Your task to perform on an android device: Add "jbl charge 4" to the cart on ebay Image 0: 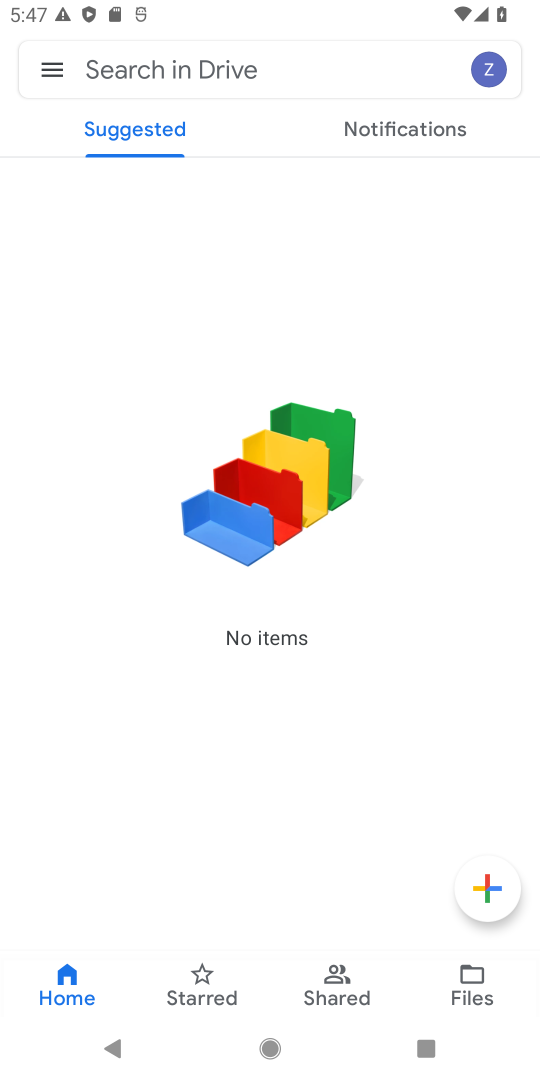
Step 0: press home button
Your task to perform on an android device: Add "jbl charge 4" to the cart on ebay Image 1: 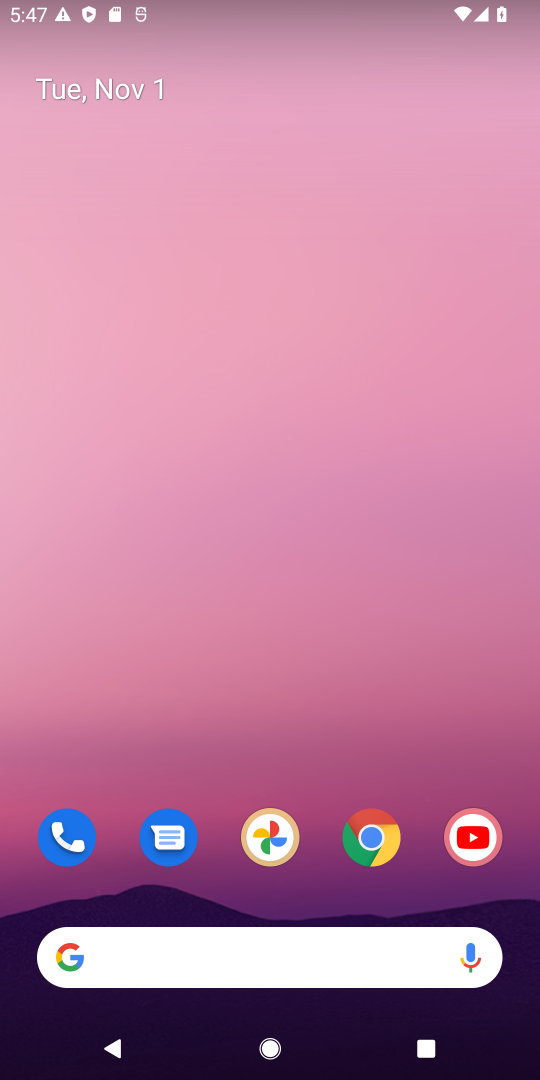
Step 1: drag from (339, 1007) to (461, 356)
Your task to perform on an android device: Add "jbl charge 4" to the cart on ebay Image 2: 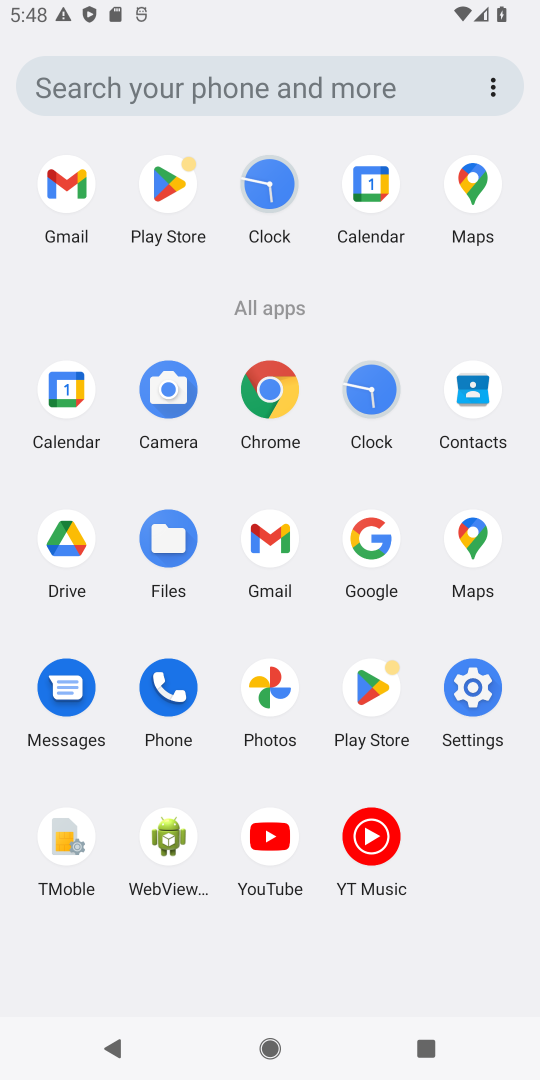
Step 2: click (275, 384)
Your task to perform on an android device: Add "jbl charge 4" to the cart on ebay Image 3: 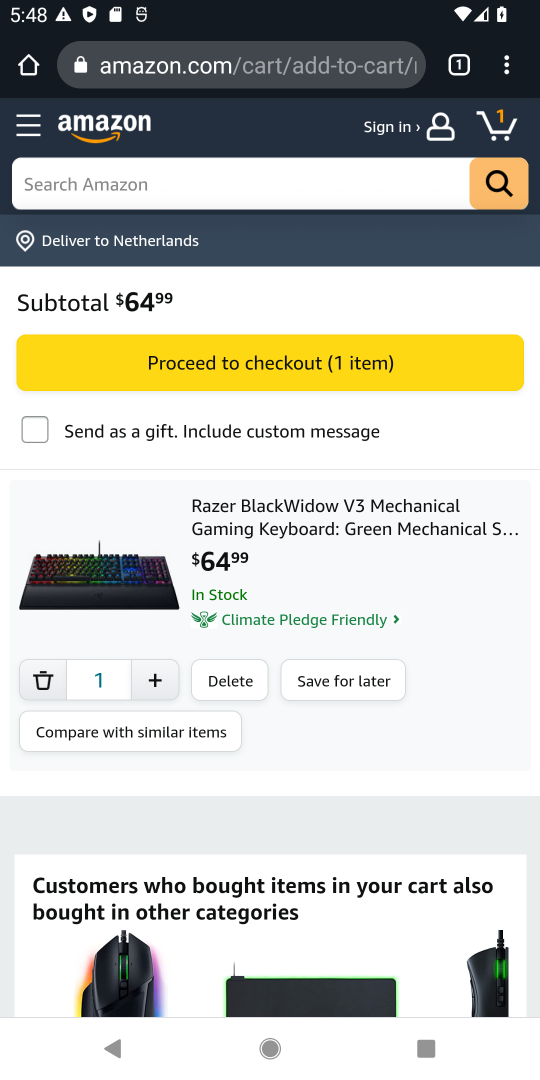
Step 3: click (207, 51)
Your task to perform on an android device: Add "jbl charge 4" to the cart on ebay Image 4: 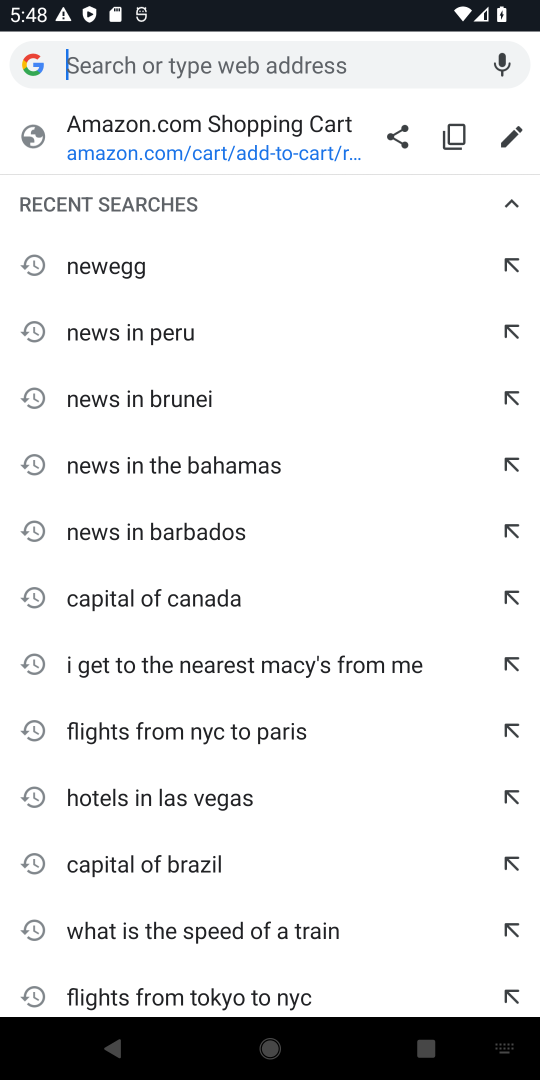
Step 4: type "ebay"
Your task to perform on an android device: Add "jbl charge 4" to the cart on ebay Image 5: 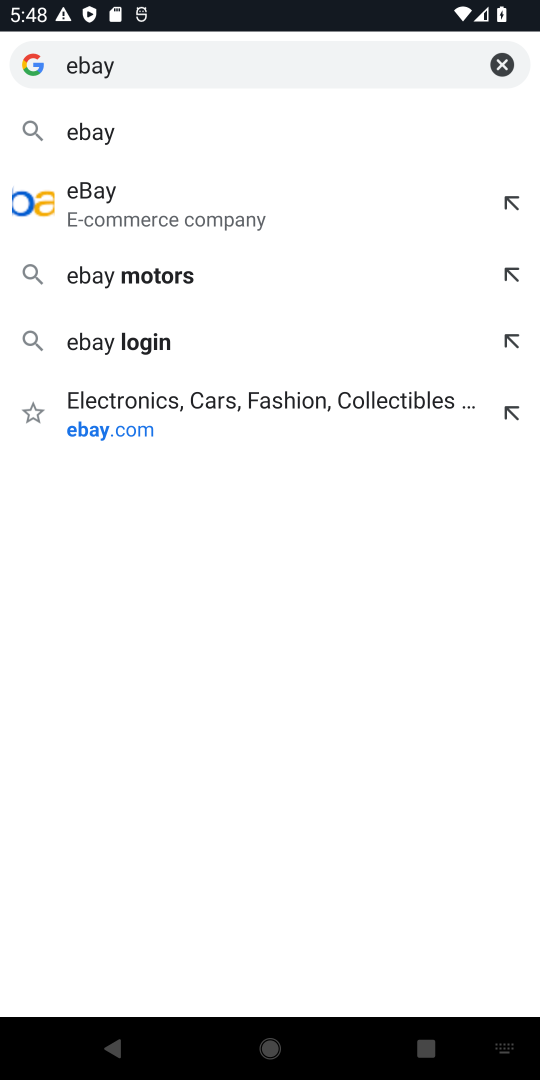
Step 5: click (89, 198)
Your task to perform on an android device: Add "jbl charge 4" to the cart on ebay Image 6: 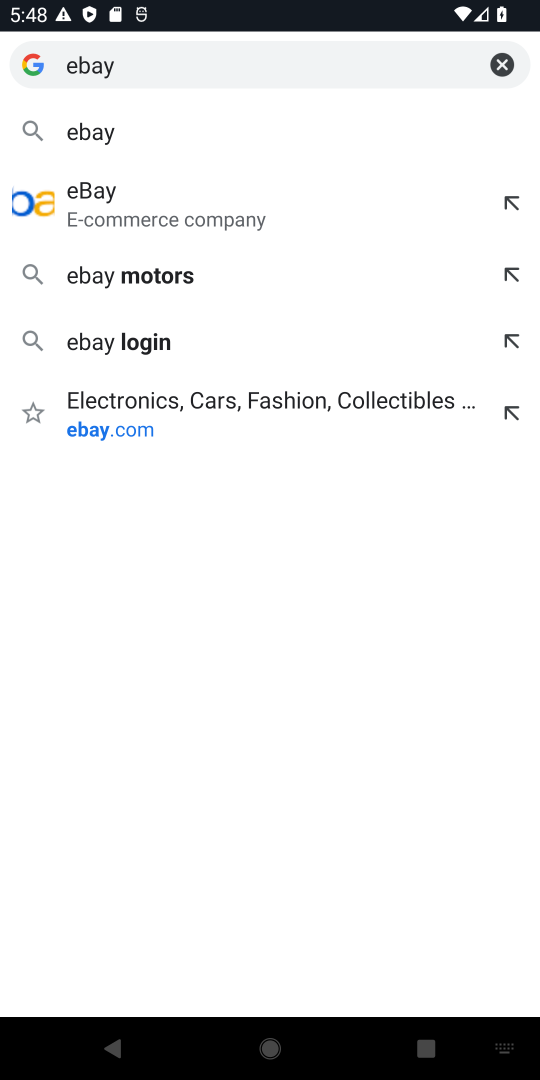
Step 6: click (83, 187)
Your task to perform on an android device: Add "jbl charge 4" to the cart on ebay Image 7: 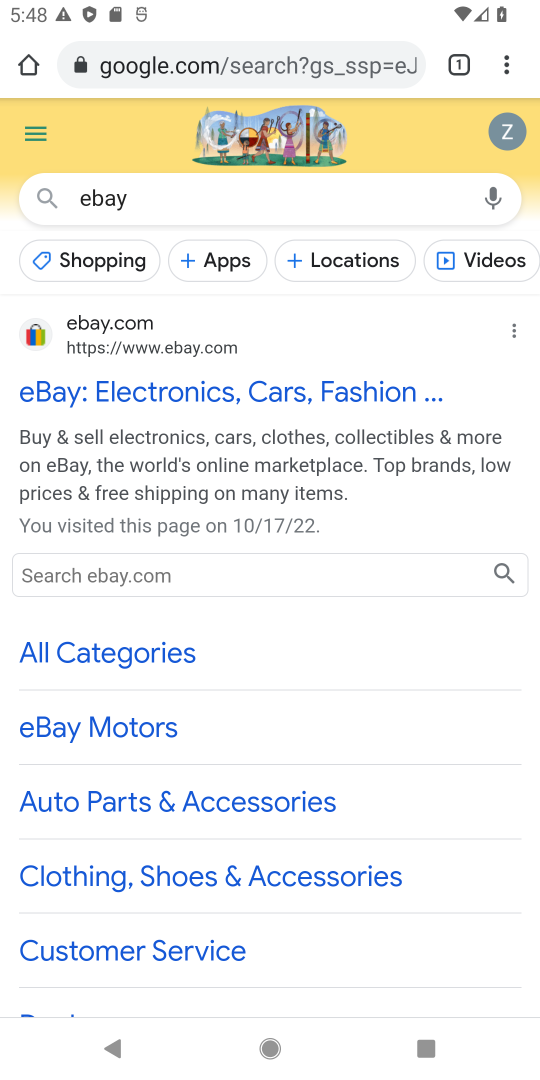
Step 7: click (120, 382)
Your task to perform on an android device: Add "jbl charge 4" to the cart on ebay Image 8: 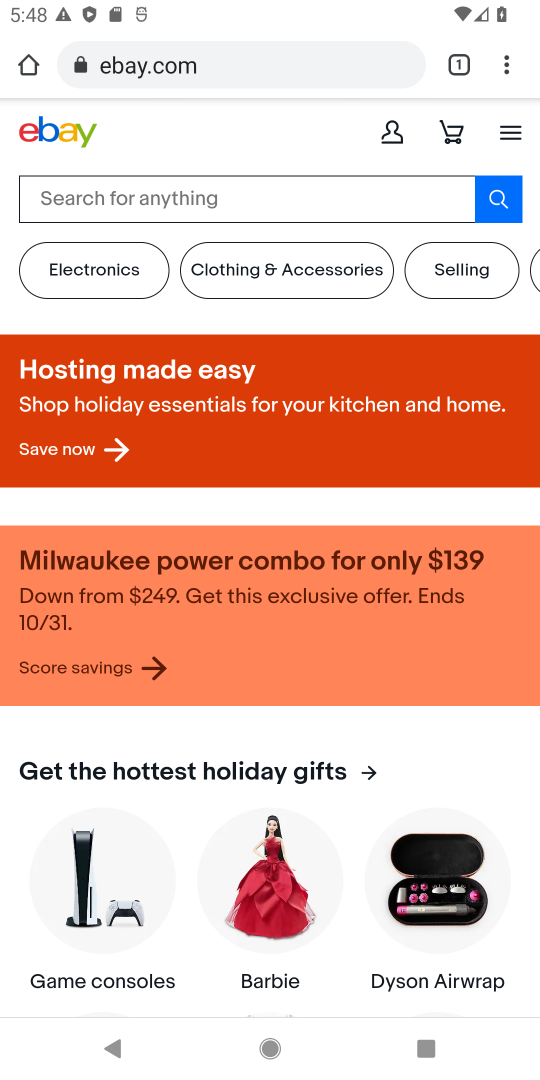
Step 8: click (204, 397)
Your task to perform on an android device: Add "jbl charge 4" to the cart on ebay Image 9: 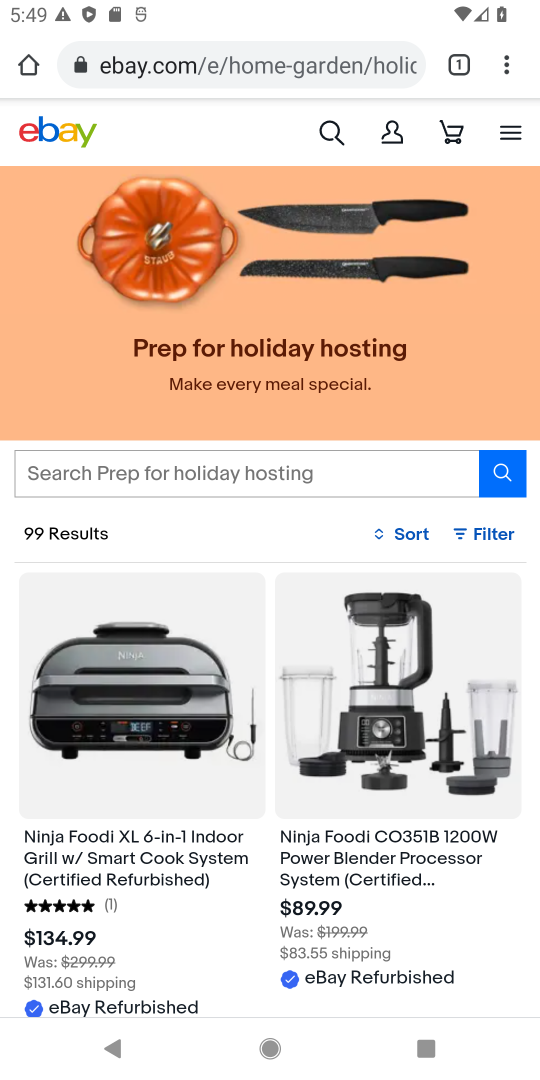
Step 9: click (331, 122)
Your task to perform on an android device: Add "jbl charge 4" to the cart on ebay Image 10: 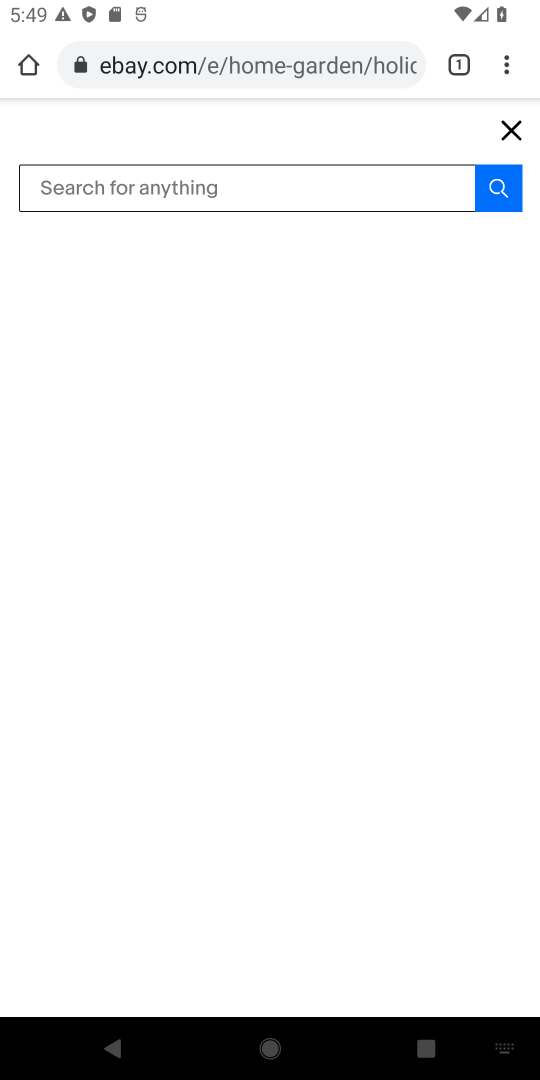
Step 10: click (144, 182)
Your task to perform on an android device: Add "jbl charge 4" to the cart on ebay Image 11: 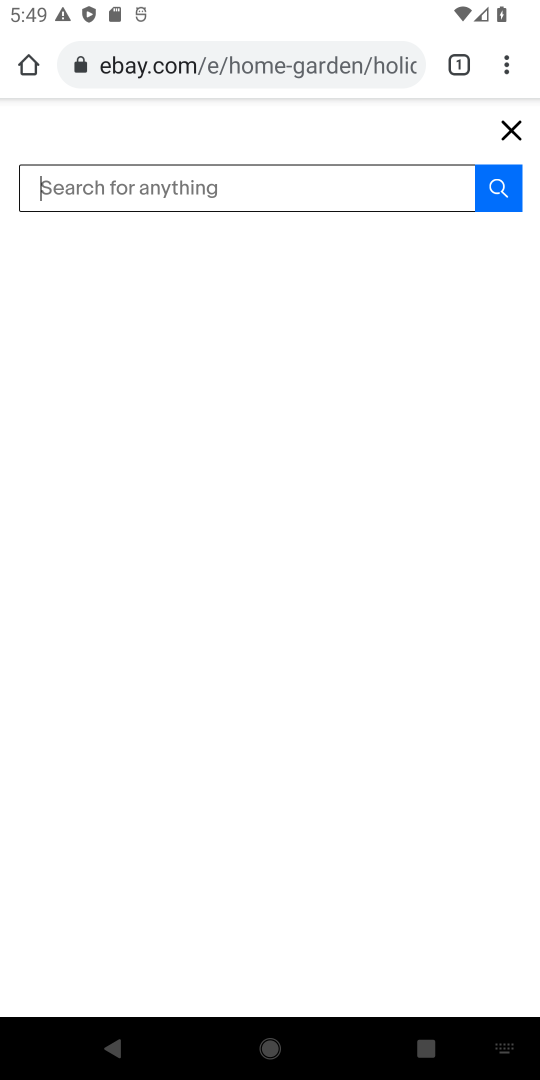
Step 11: type "jbl charge 4"
Your task to perform on an android device: Add "jbl charge 4" to the cart on ebay Image 12: 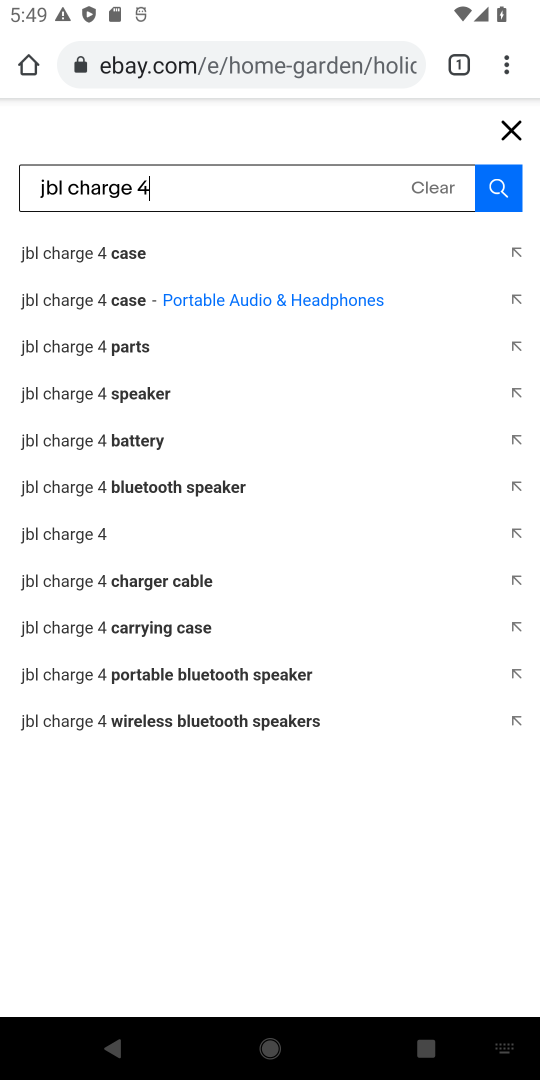
Step 12: click (502, 180)
Your task to perform on an android device: Add "jbl charge 4" to the cart on ebay Image 13: 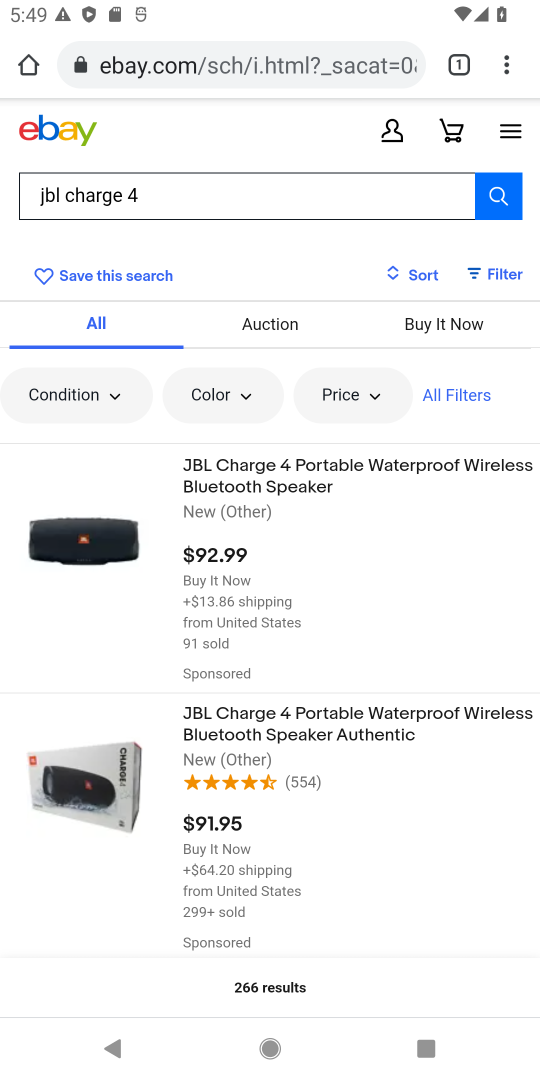
Step 13: click (114, 552)
Your task to perform on an android device: Add "jbl charge 4" to the cart on ebay Image 14: 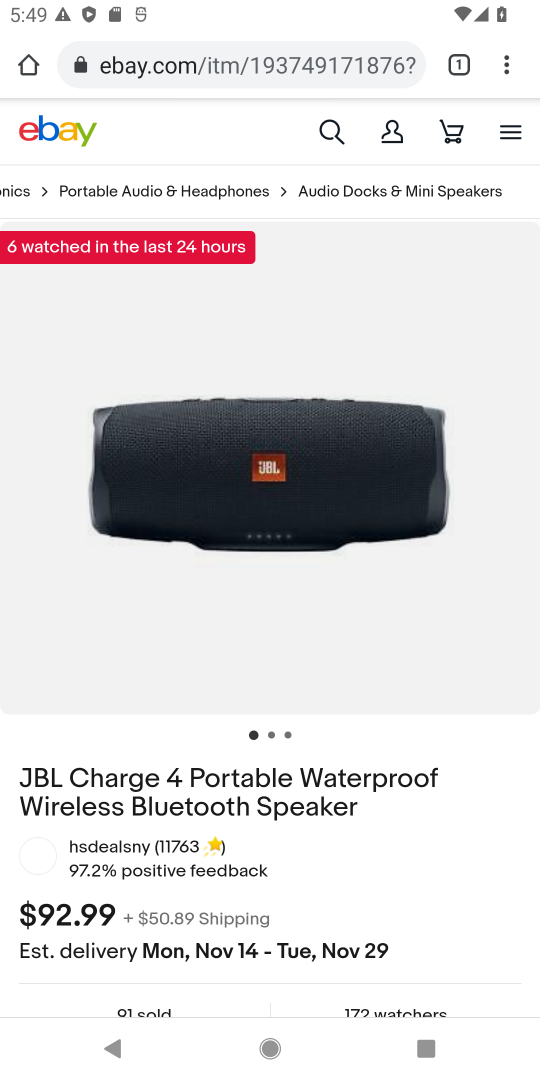
Step 14: drag from (410, 840) to (440, 226)
Your task to perform on an android device: Add "jbl charge 4" to the cart on ebay Image 15: 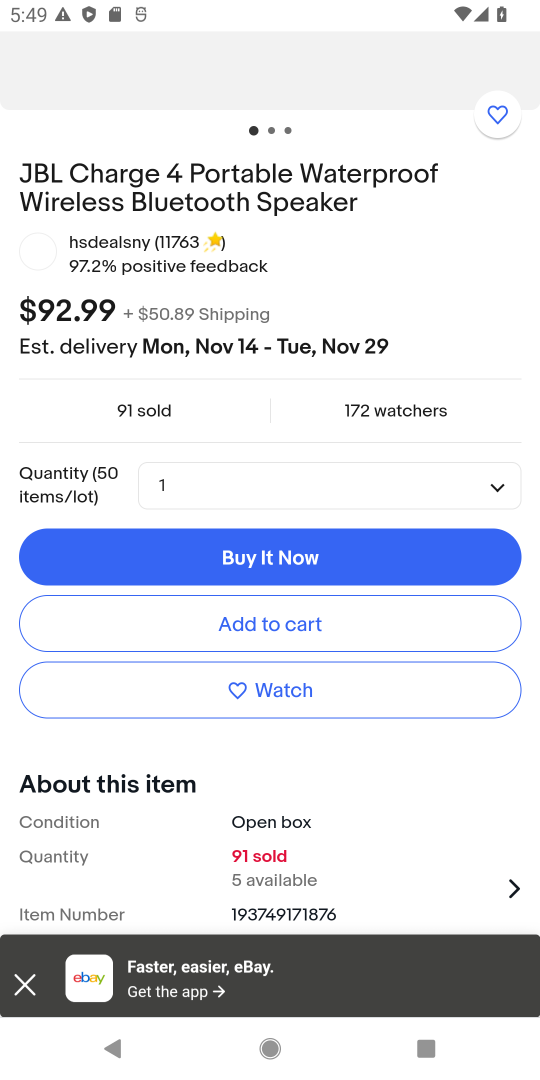
Step 15: click (276, 619)
Your task to perform on an android device: Add "jbl charge 4" to the cart on ebay Image 16: 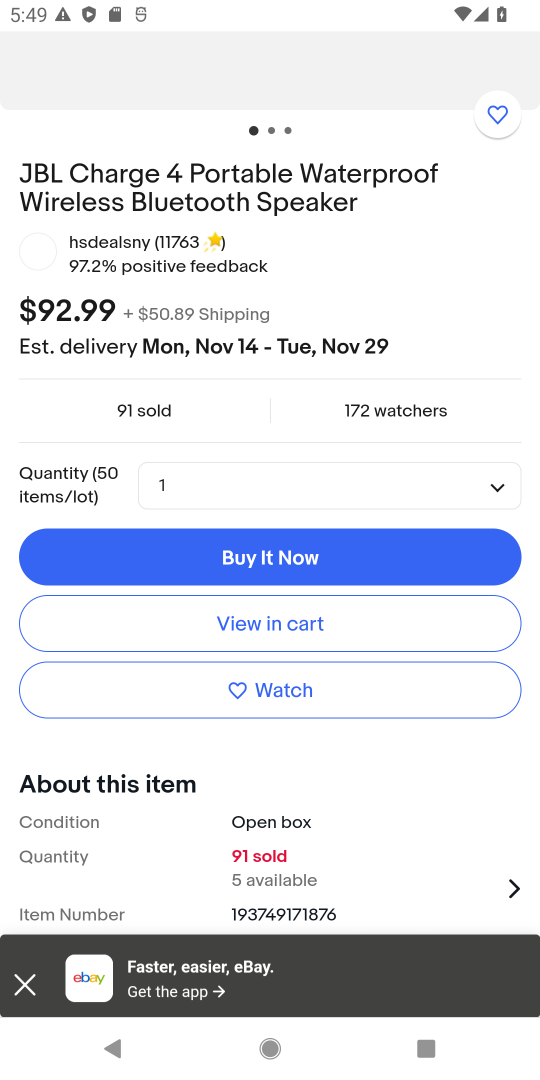
Step 16: task complete